Your task to perform on an android device: open sync settings in chrome Image 0: 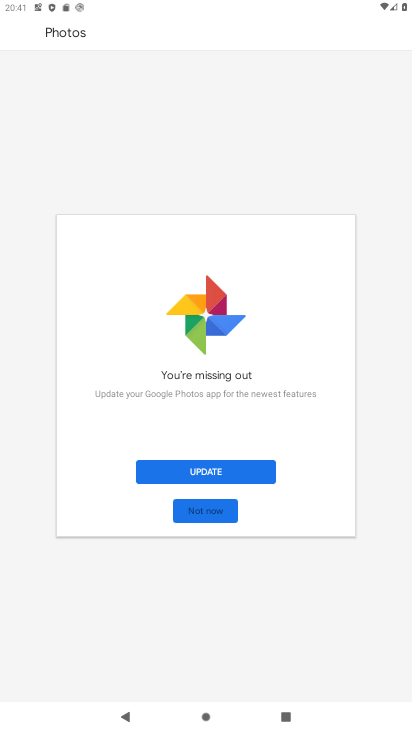
Step 0: press home button
Your task to perform on an android device: open sync settings in chrome Image 1: 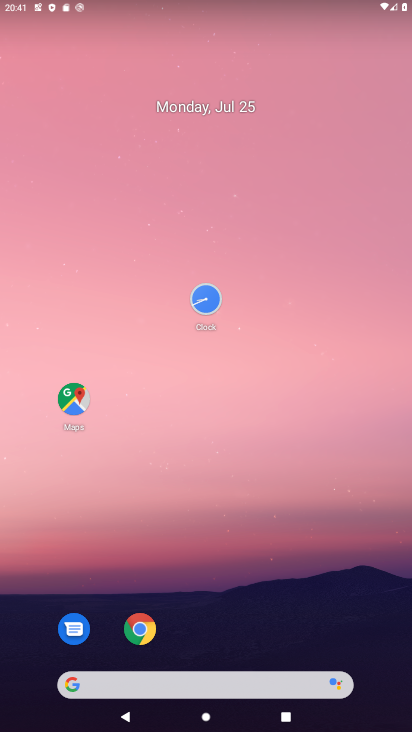
Step 1: click (147, 632)
Your task to perform on an android device: open sync settings in chrome Image 2: 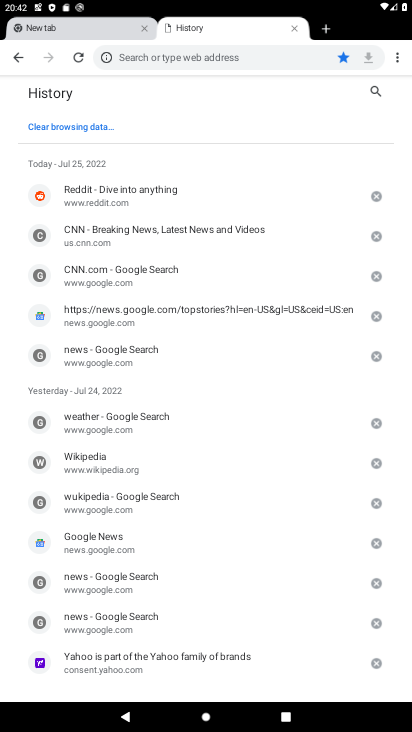
Step 2: click (393, 51)
Your task to perform on an android device: open sync settings in chrome Image 3: 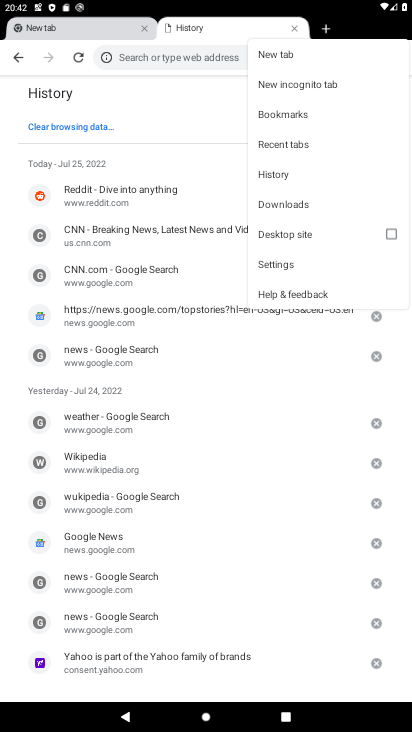
Step 3: click (290, 265)
Your task to perform on an android device: open sync settings in chrome Image 4: 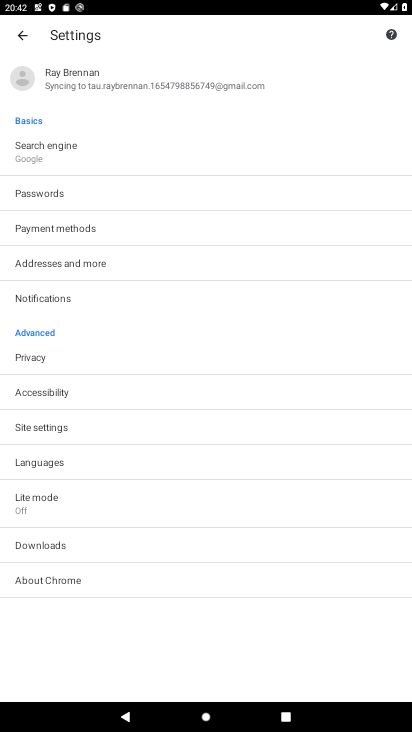
Step 4: click (112, 84)
Your task to perform on an android device: open sync settings in chrome Image 5: 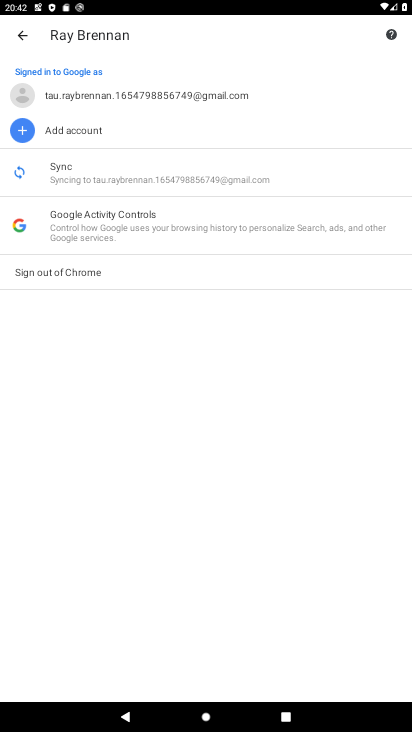
Step 5: click (106, 165)
Your task to perform on an android device: open sync settings in chrome Image 6: 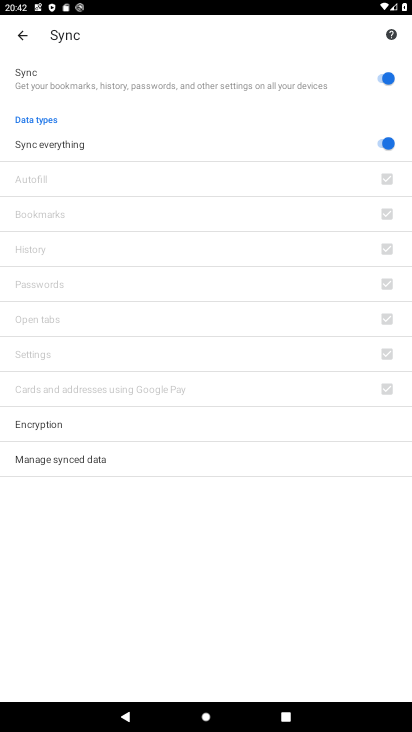
Step 6: task complete